Your task to perform on an android device: install app "LinkedIn" Image 0: 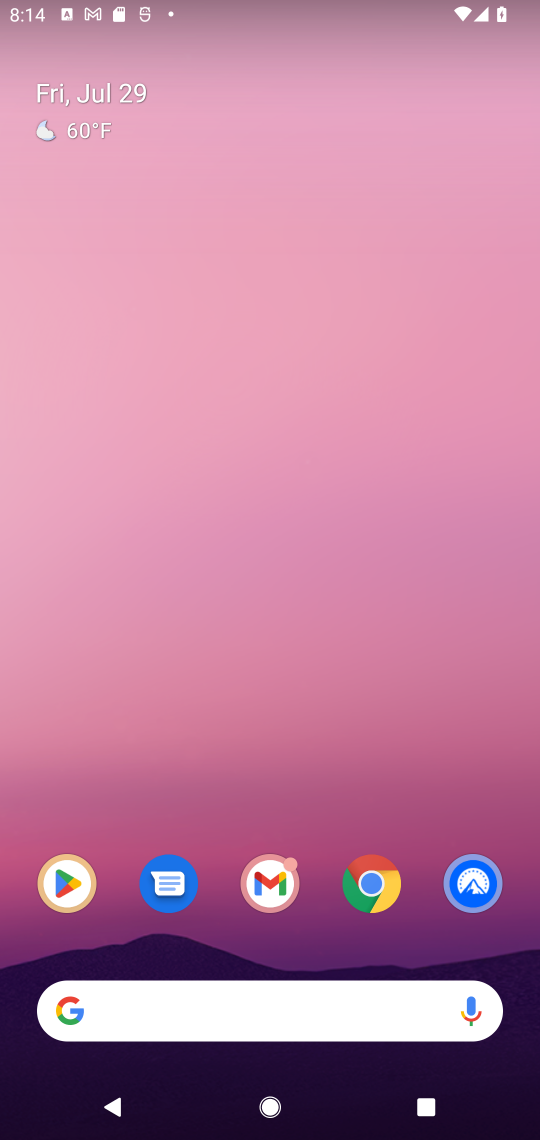
Step 0: click (57, 883)
Your task to perform on an android device: install app "LinkedIn" Image 1: 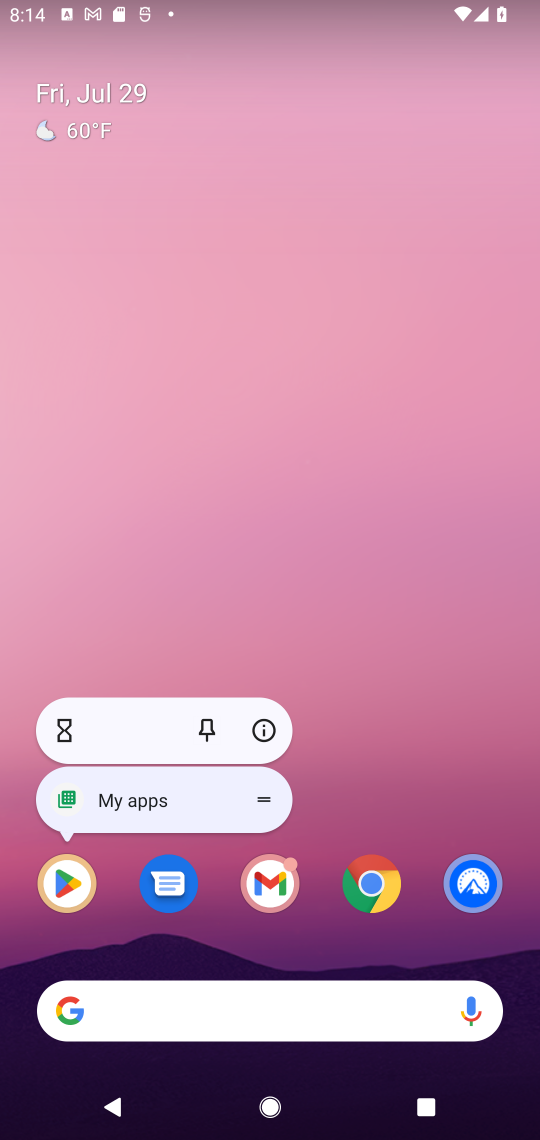
Step 1: click (73, 878)
Your task to perform on an android device: install app "LinkedIn" Image 2: 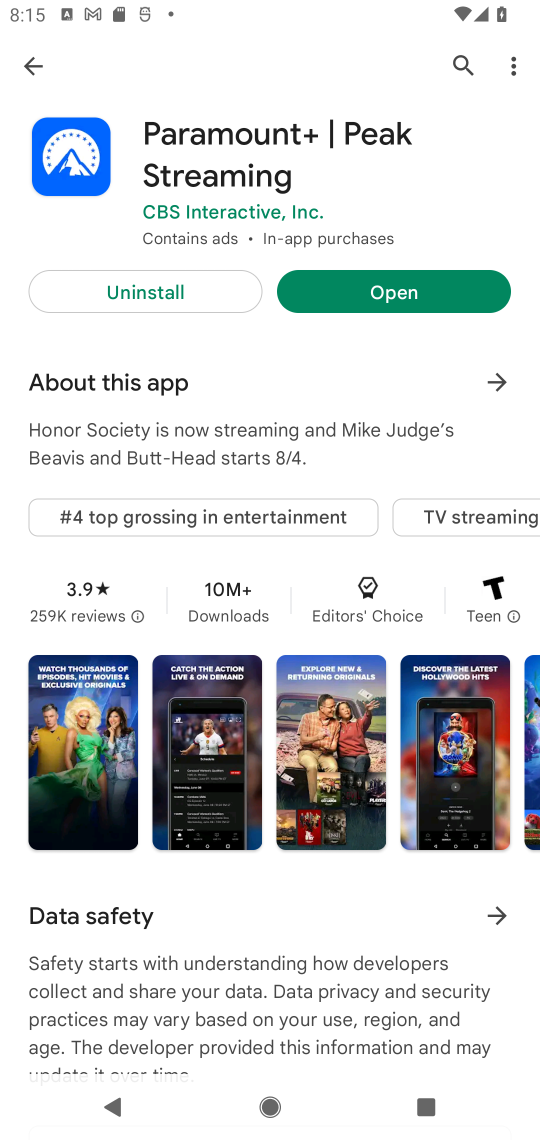
Step 2: click (459, 51)
Your task to perform on an android device: install app "LinkedIn" Image 3: 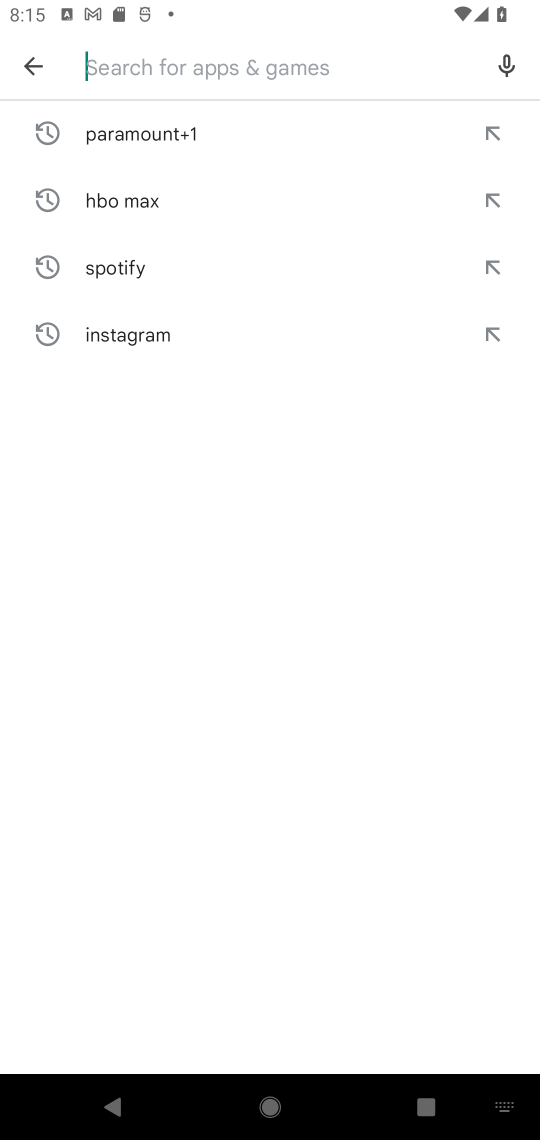
Step 3: click (237, 48)
Your task to perform on an android device: install app "LinkedIn" Image 4: 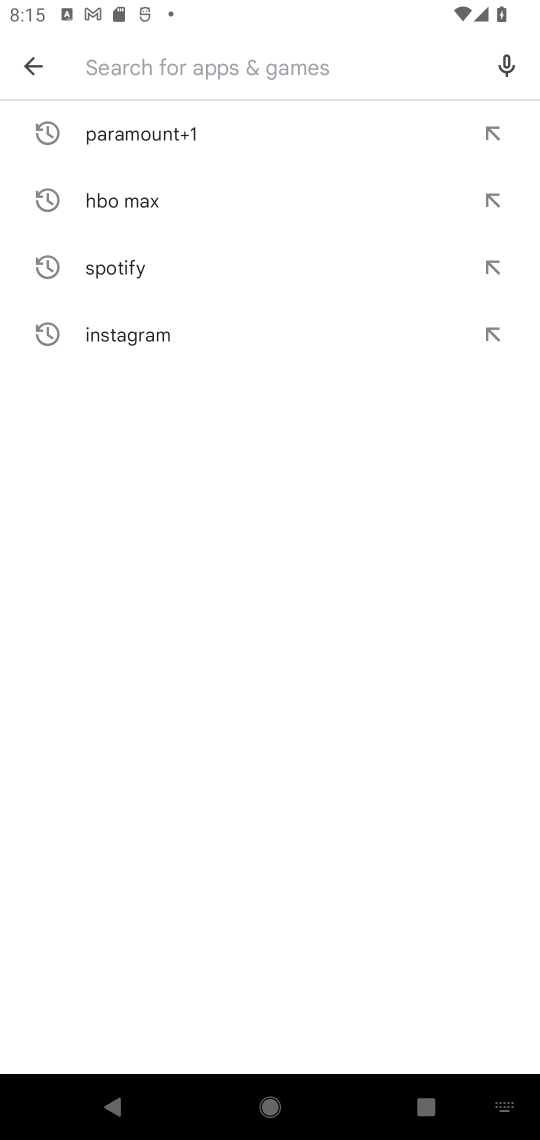
Step 4: type "linkedln"
Your task to perform on an android device: install app "LinkedIn" Image 5: 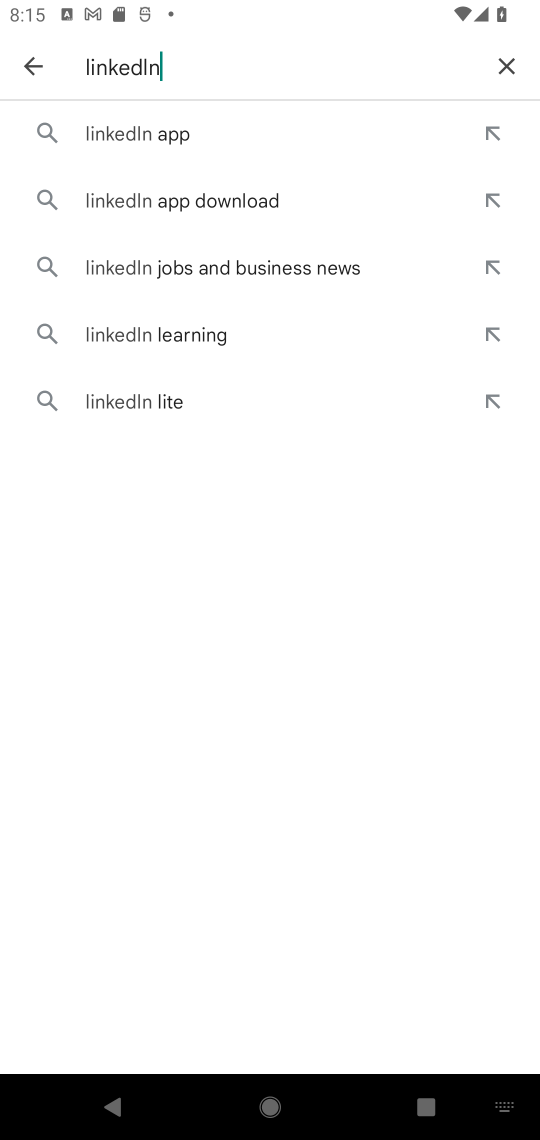
Step 5: click (190, 129)
Your task to perform on an android device: install app "LinkedIn" Image 6: 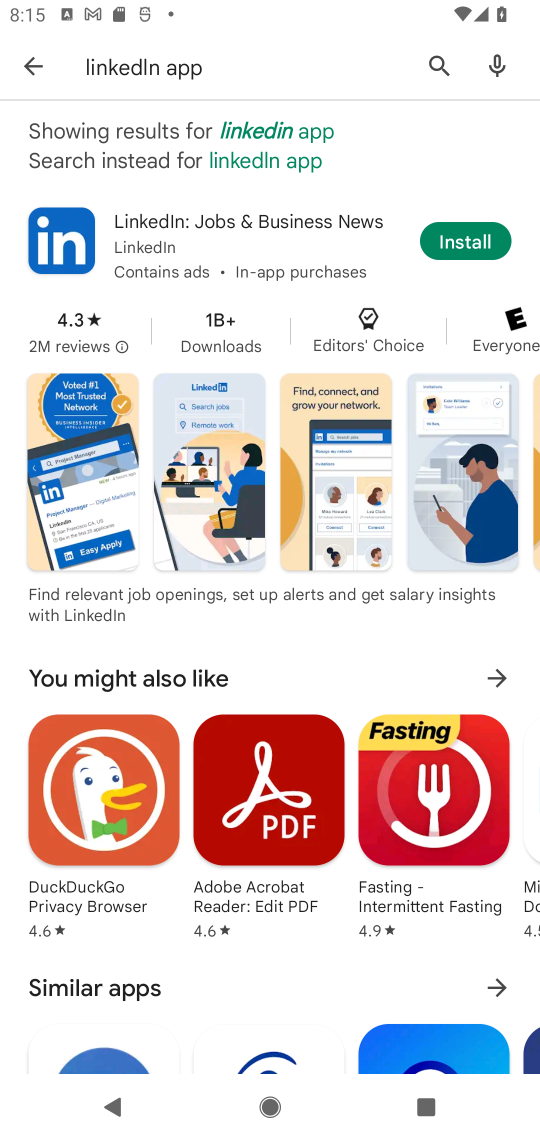
Step 6: click (473, 253)
Your task to perform on an android device: install app "LinkedIn" Image 7: 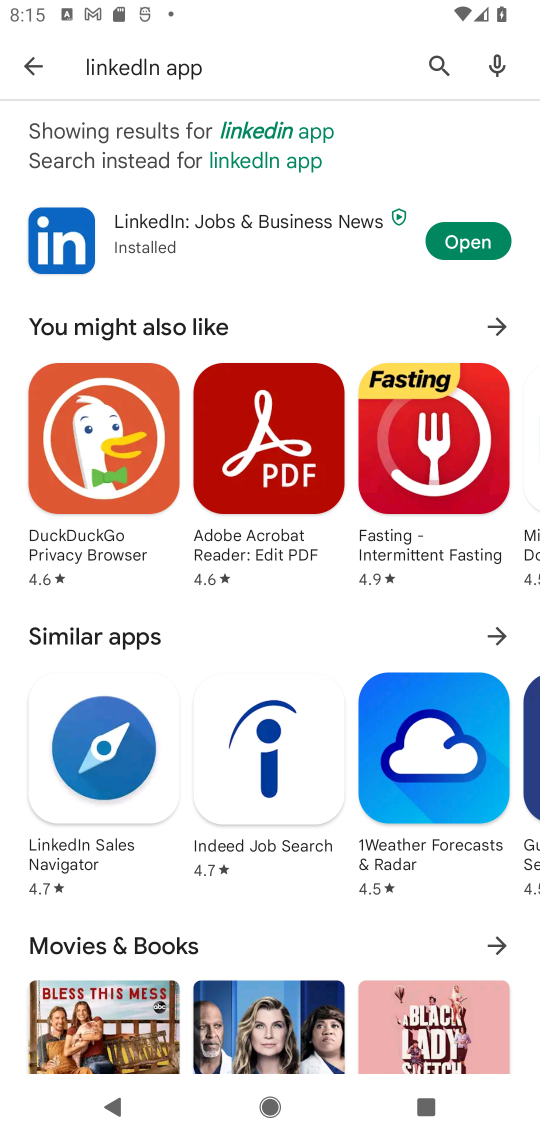
Step 7: task complete